Your task to perform on an android device: Open calendar and show me the first week of next month Image 0: 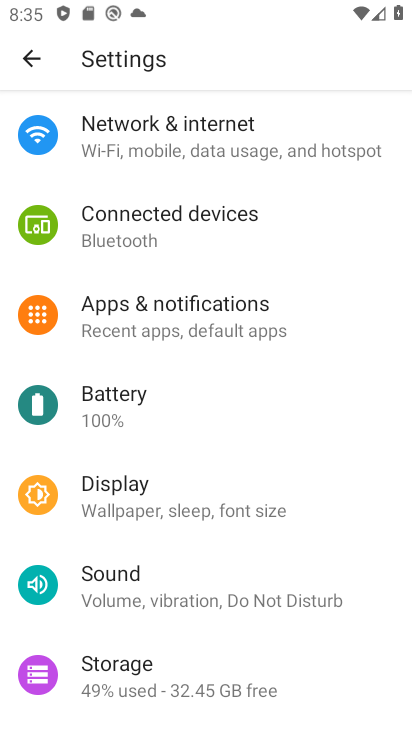
Step 0: press home button
Your task to perform on an android device: Open calendar and show me the first week of next month Image 1: 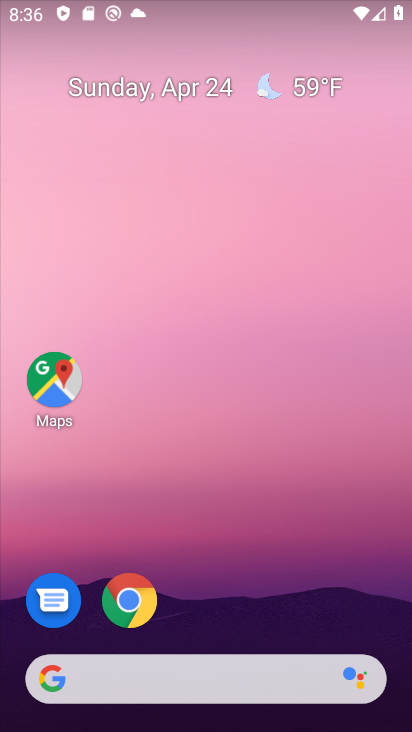
Step 1: drag from (208, 713) to (213, 221)
Your task to perform on an android device: Open calendar and show me the first week of next month Image 2: 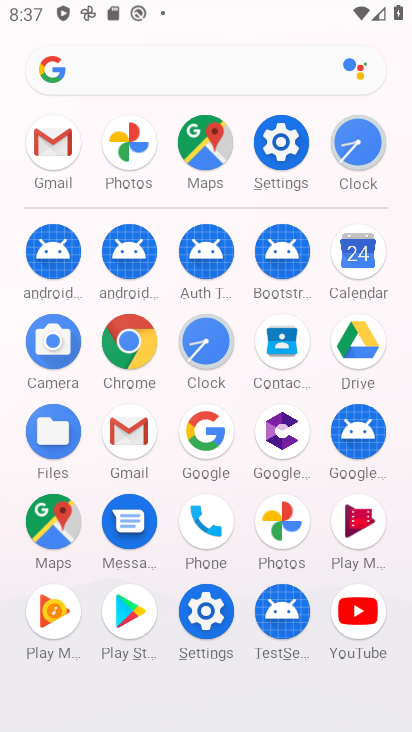
Step 2: click (362, 250)
Your task to perform on an android device: Open calendar and show me the first week of next month Image 3: 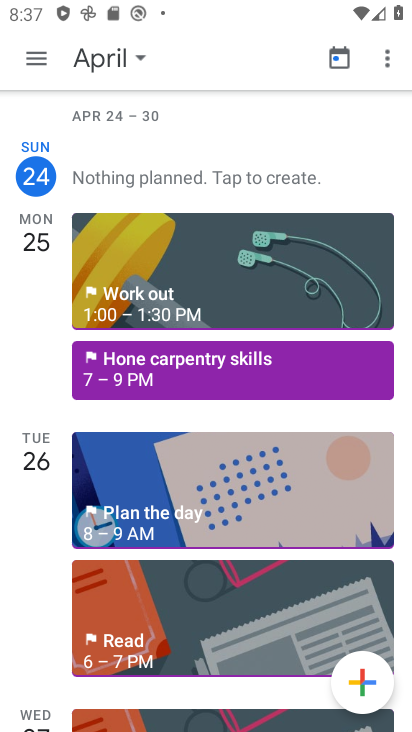
Step 3: click (85, 55)
Your task to perform on an android device: Open calendar and show me the first week of next month Image 4: 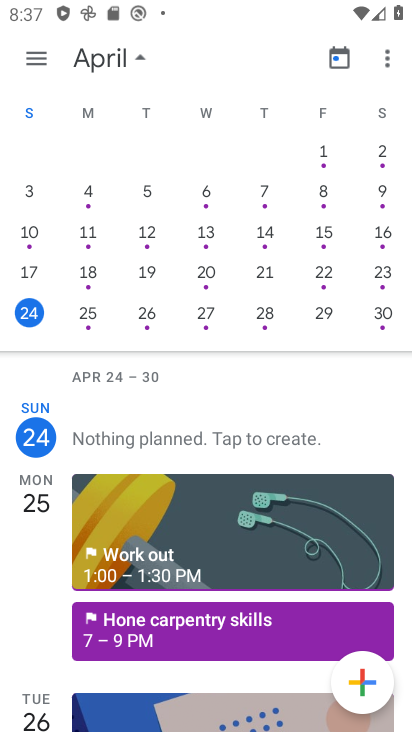
Step 4: drag from (360, 250) to (22, 231)
Your task to perform on an android device: Open calendar and show me the first week of next month Image 5: 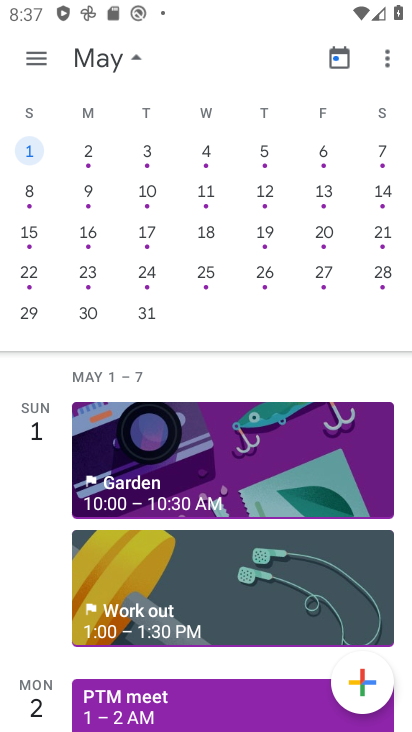
Step 5: click (84, 153)
Your task to perform on an android device: Open calendar and show me the first week of next month Image 6: 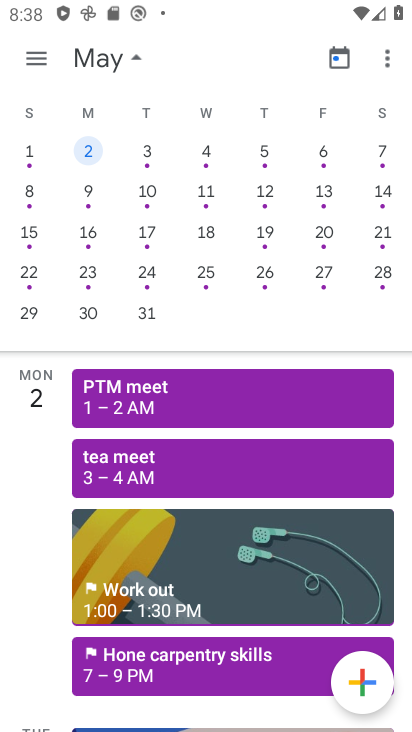
Step 6: task complete